Your task to perform on an android device: turn on the 12-hour format for clock Image 0: 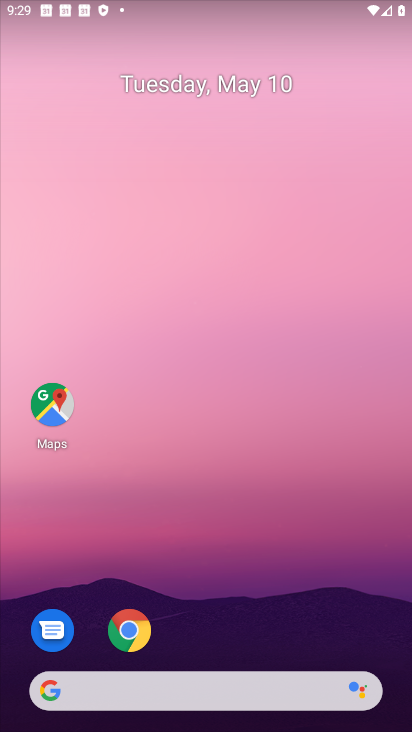
Step 0: drag from (220, 728) to (280, 170)
Your task to perform on an android device: turn on the 12-hour format for clock Image 1: 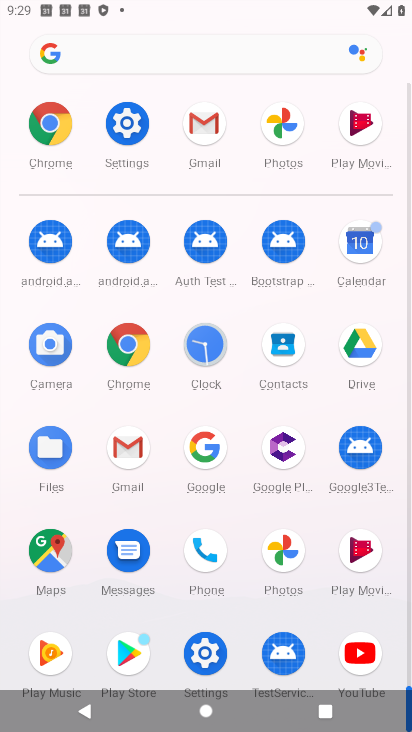
Step 1: click (204, 358)
Your task to perform on an android device: turn on the 12-hour format for clock Image 2: 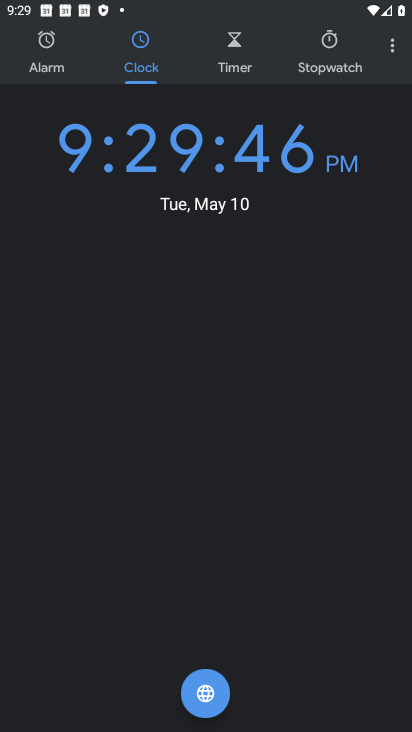
Step 2: click (393, 38)
Your task to perform on an android device: turn on the 12-hour format for clock Image 3: 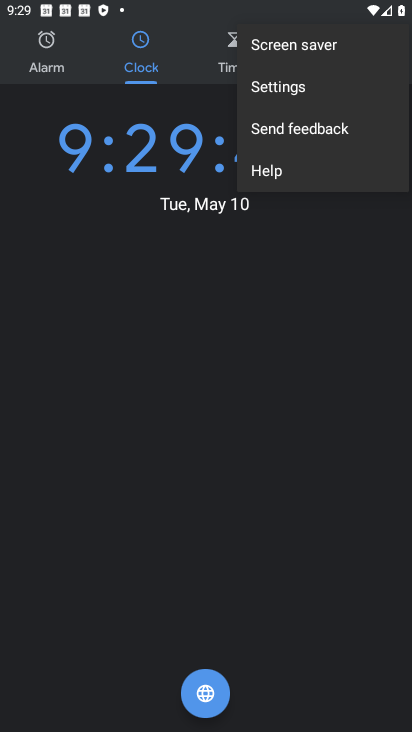
Step 3: click (343, 89)
Your task to perform on an android device: turn on the 12-hour format for clock Image 4: 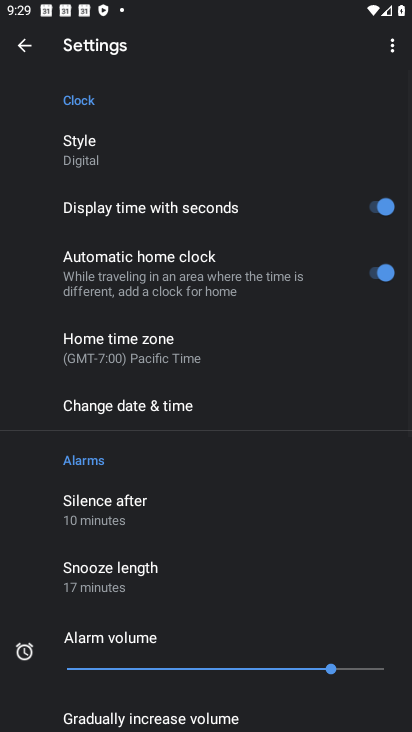
Step 4: click (188, 406)
Your task to perform on an android device: turn on the 12-hour format for clock Image 5: 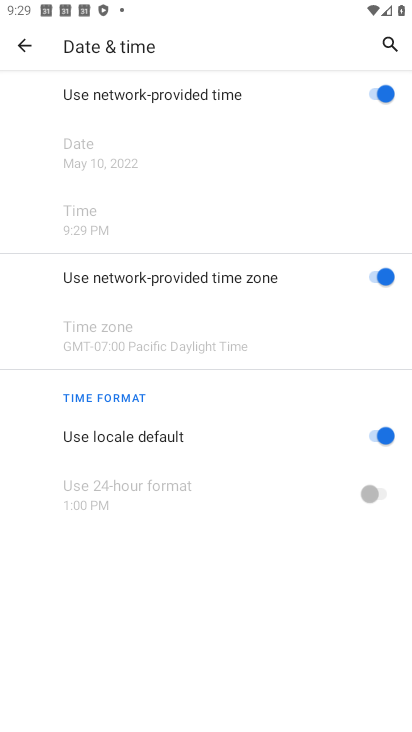
Step 5: task complete